Your task to perform on an android device: find snoozed emails in the gmail app Image 0: 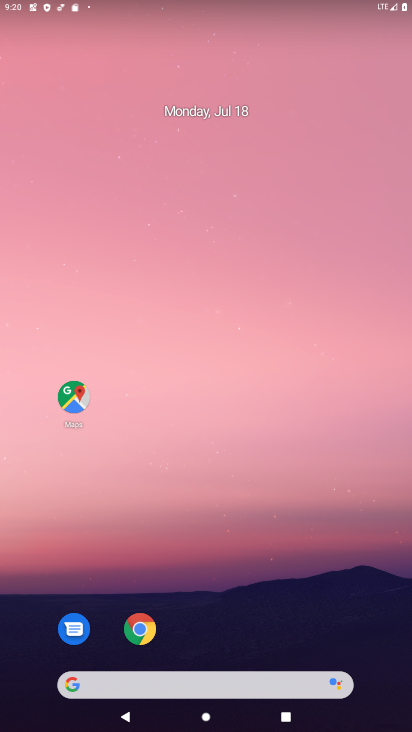
Step 0: drag from (361, 680) to (288, 115)
Your task to perform on an android device: find snoozed emails in the gmail app Image 1: 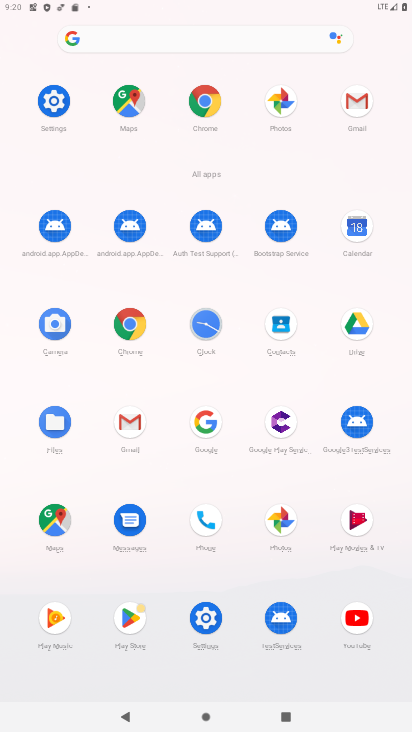
Step 1: click (132, 415)
Your task to perform on an android device: find snoozed emails in the gmail app Image 2: 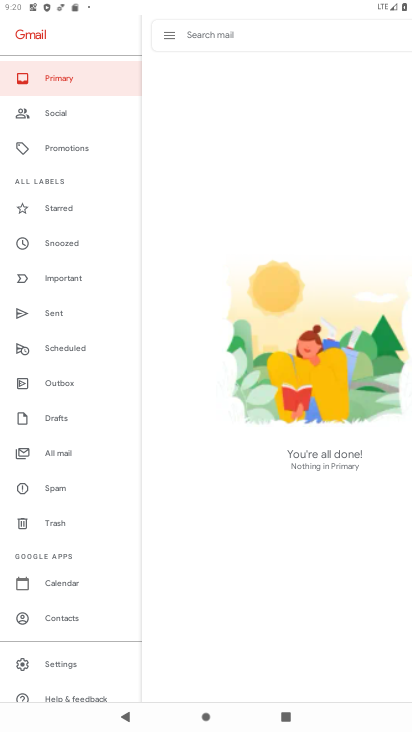
Step 2: drag from (83, 666) to (110, 345)
Your task to perform on an android device: find snoozed emails in the gmail app Image 3: 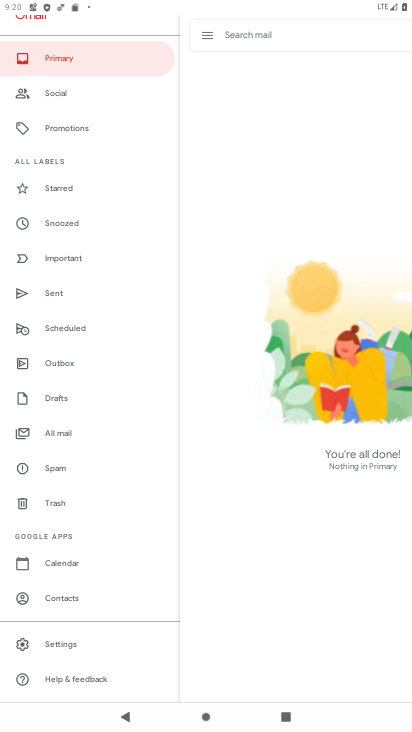
Step 3: click (48, 226)
Your task to perform on an android device: find snoozed emails in the gmail app Image 4: 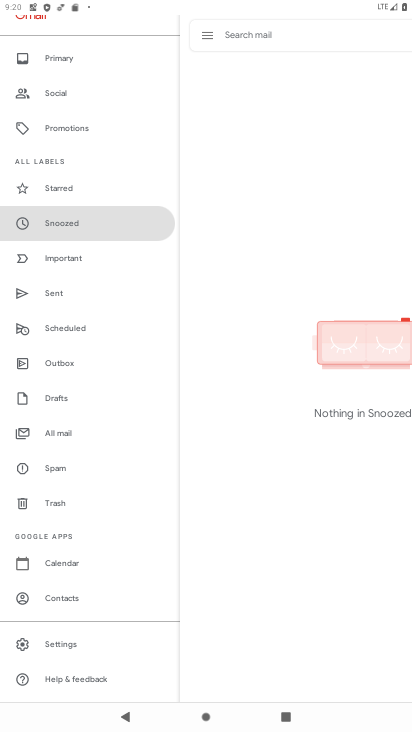
Step 4: task complete